Your task to perform on an android device: Go to notification settings Image 0: 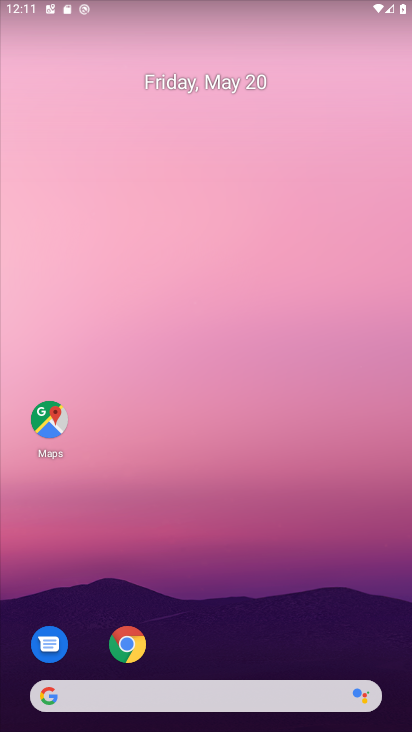
Step 0: drag from (194, 684) to (253, 180)
Your task to perform on an android device: Go to notification settings Image 1: 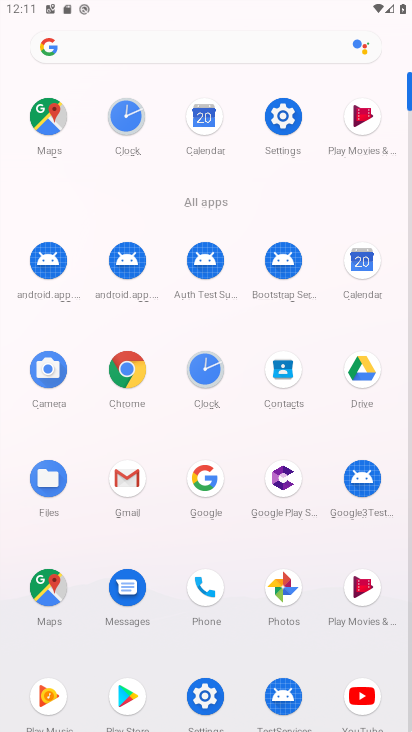
Step 1: click (289, 122)
Your task to perform on an android device: Go to notification settings Image 2: 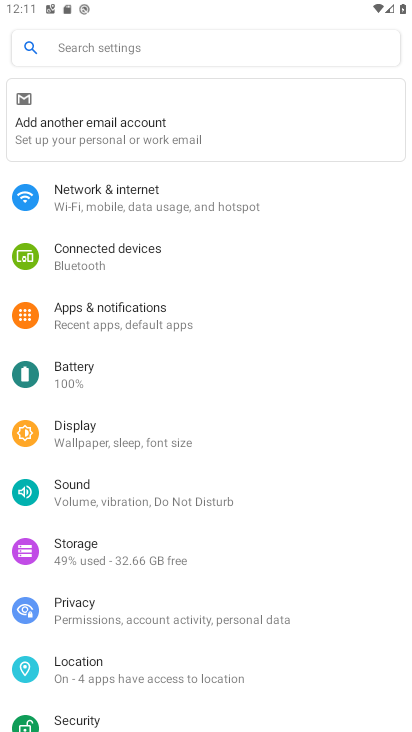
Step 2: click (118, 314)
Your task to perform on an android device: Go to notification settings Image 3: 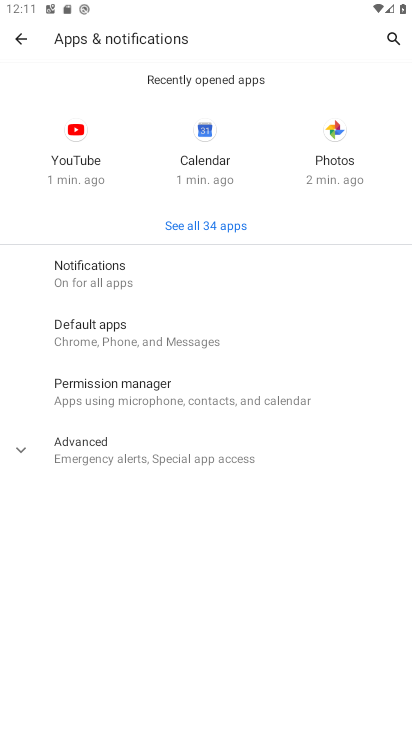
Step 3: click (106, 444)
Your task to perform on an android device: Go to notification settings Image 4: 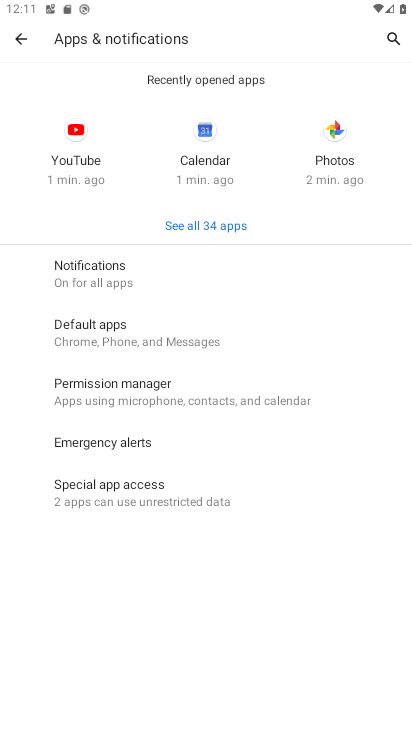
Step 4: task complete